Your task to perform on an android device: Check the news Image 0: 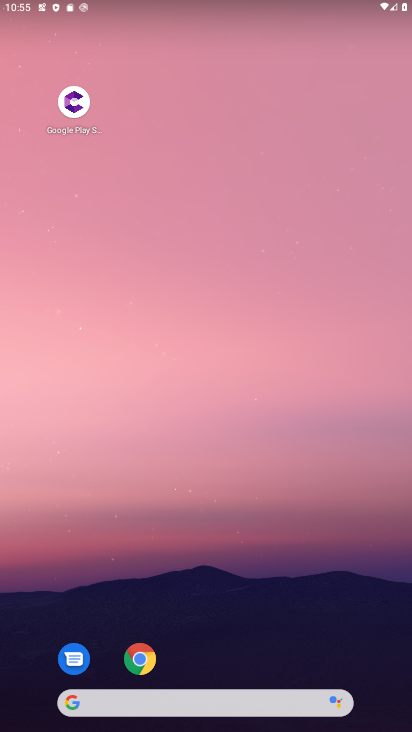
Step 0: drag from (31, 393) to (342, 316)
Your task to perform on an android device: Check the news Image 1: 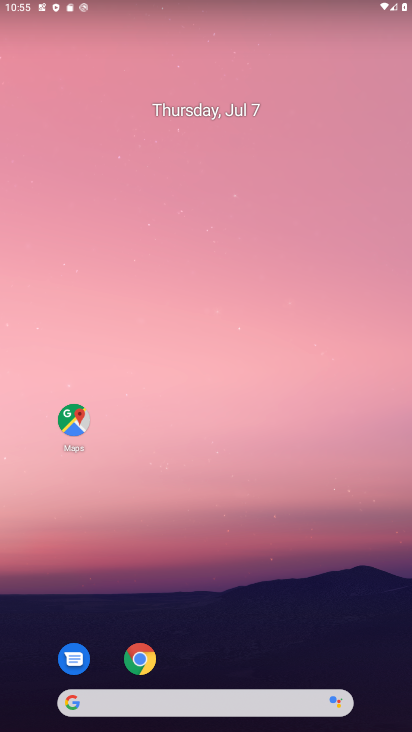
Step 1: task complete